Your task to perform on an android device: uninstall "Google Docs" Image 0: 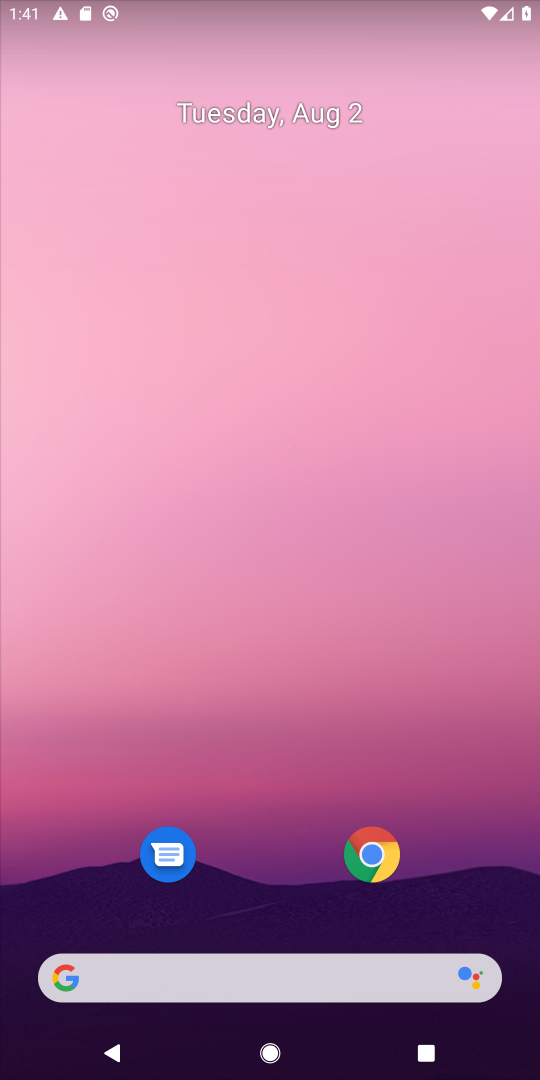
Step 0: drag from (319, 1018) to (304, 184)
Your task to perform on an android device: uninstall "Google Docs" Image 1: 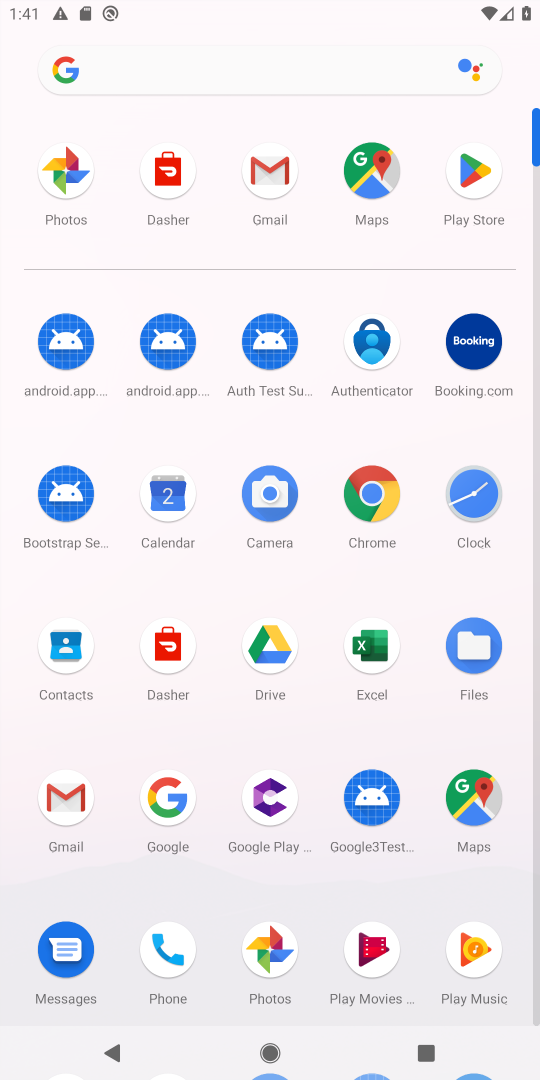
Step 1: click (472, 159)
Your task to perform on an android device: uninstall "Google Docs" Image 2: 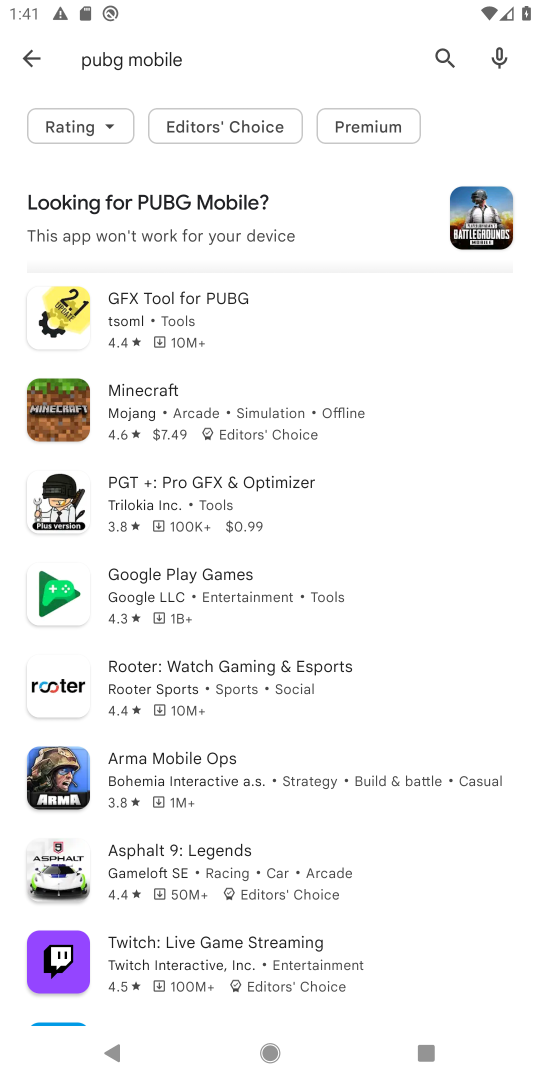
Step 2: click (437, 48)
Your task to perform on an android device: uninstall "Google Docs" Image 3: 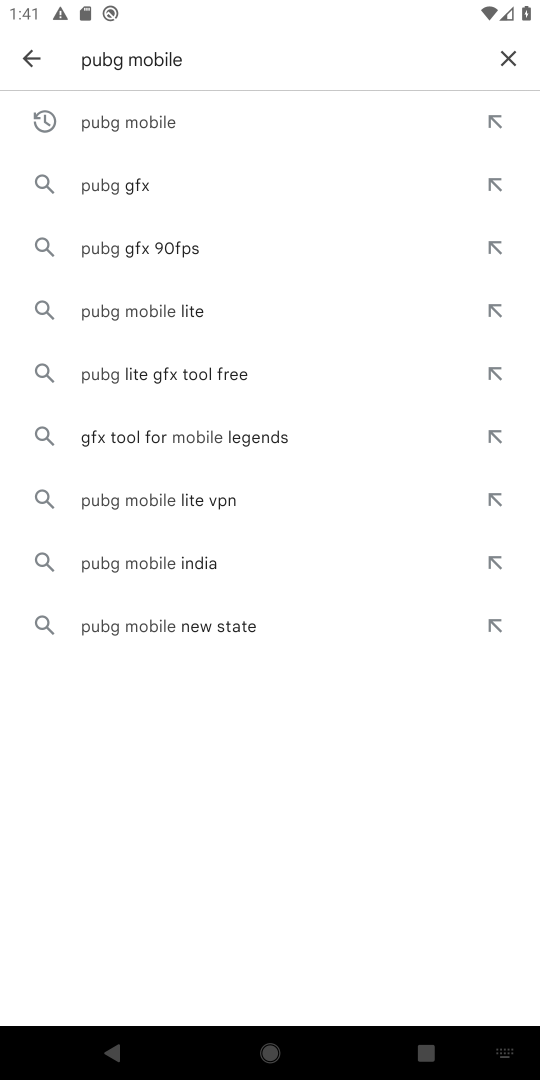
Step 3: click (509, 54)
Your task to perform on an android device: uninstall "Google Docs" Image 4: 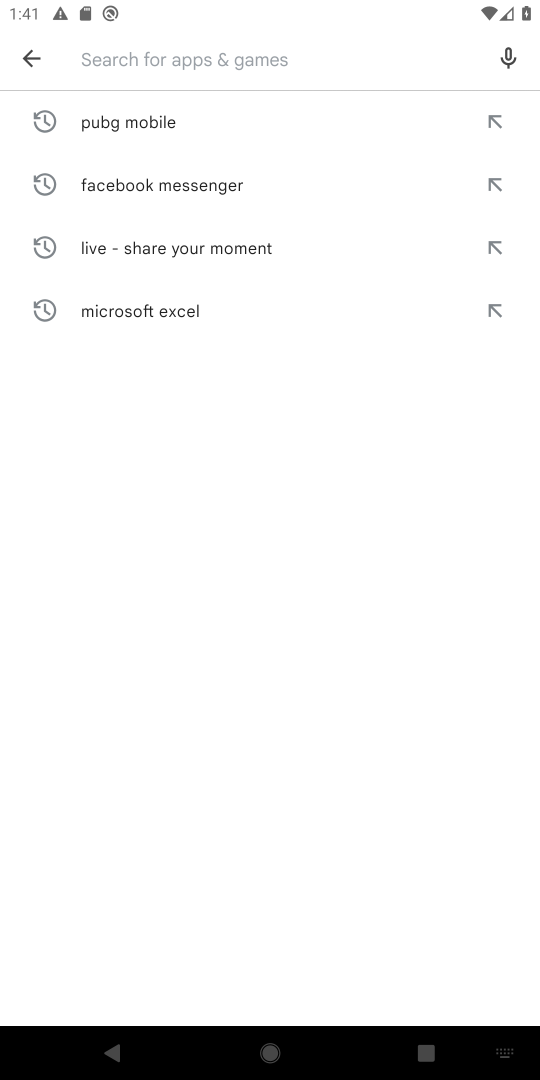
Step 4: type "Google Docs"
Your task to perform on an android device: uninstall "Google Docs" Image 5: 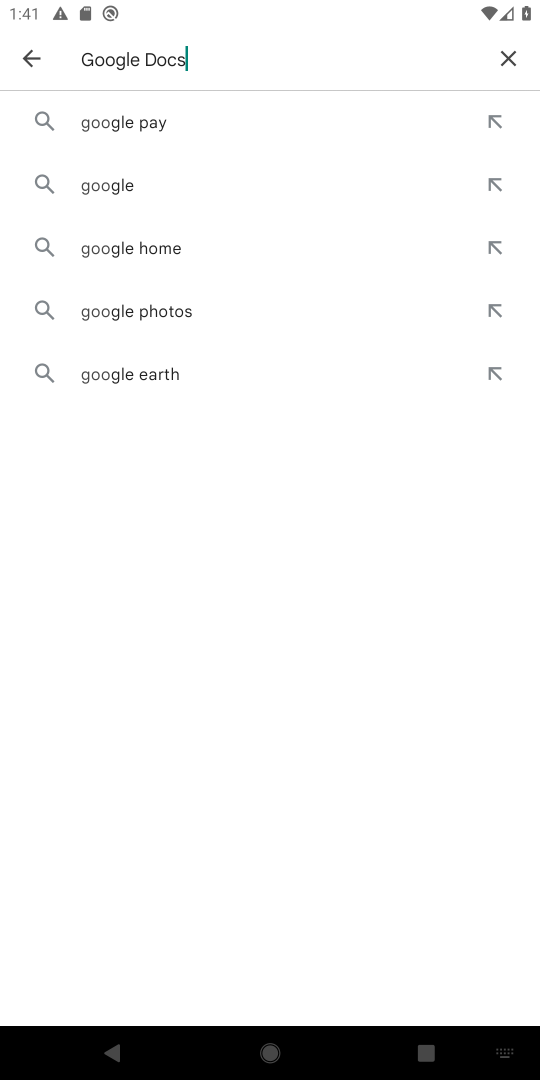
Step 5: type ""
Your task to perform on an android device: uninstall "Google Docs" Image 6: 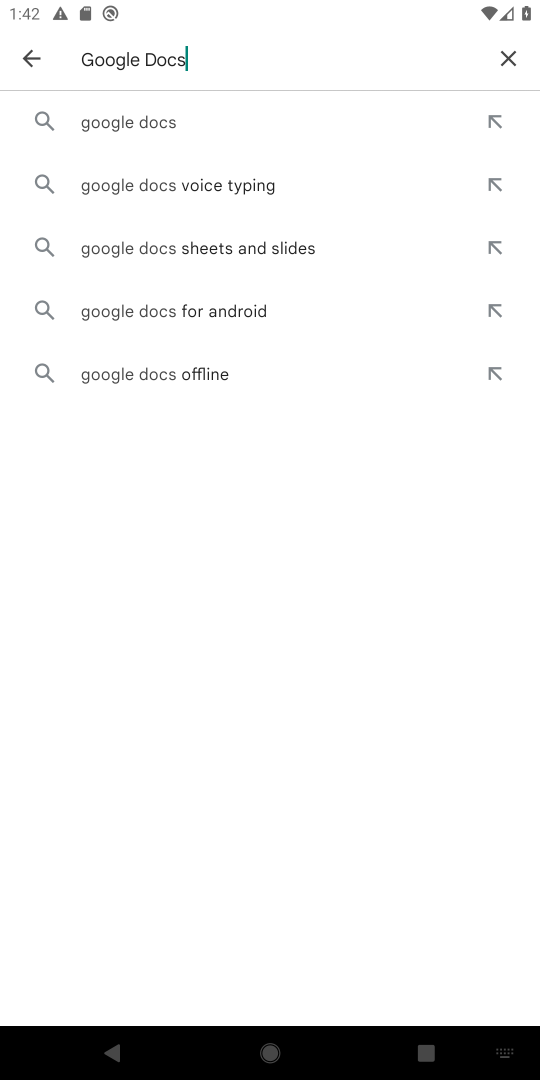
Step 6: click (96, 123)
Your task to perform on an android device: uninstall "Google Docs" Image 7: 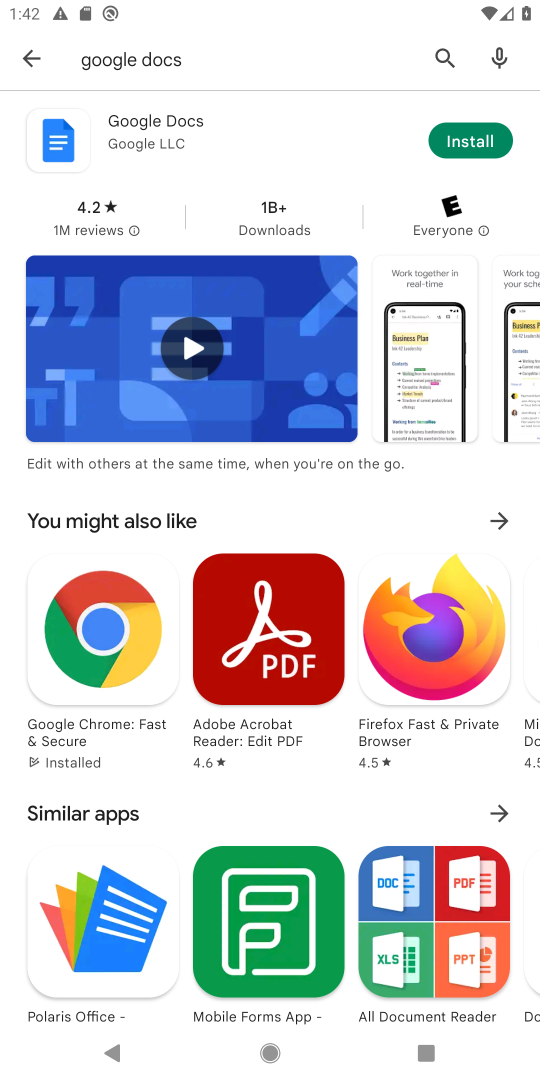
Step 7: task complete